Your task to perform on an android device: change keyboard looks Image 0: 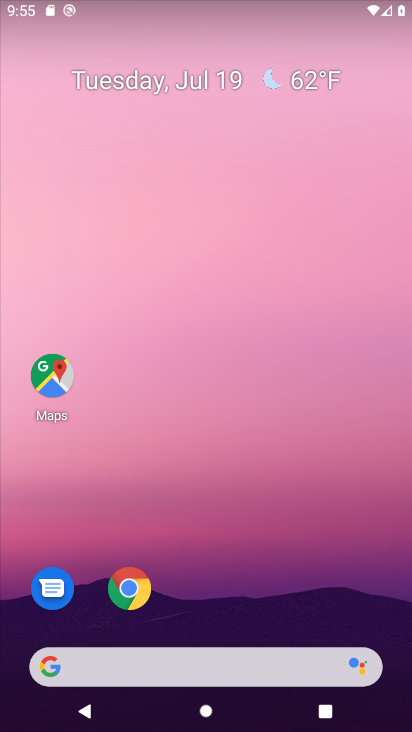
Step 0: drag from (195, 620) to (187, 127)
Your task to perform on an android device: change keyboard looks Image 1: 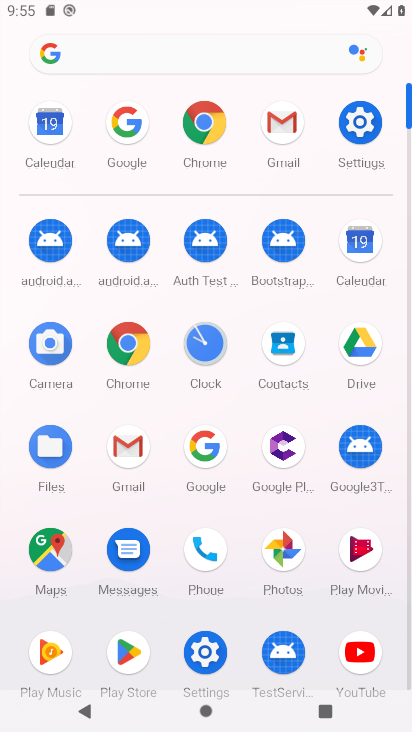
Step 1: click (358, 126)
Your task to perform on an android device: change keyboard looks Image 2: 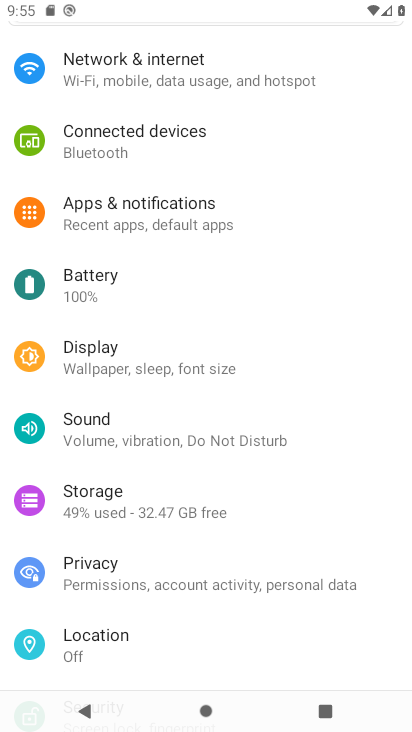
Step 2: drag from (139, 552) to (139, 364)
Your task to perform on an android device: change keyboard looks Image 3: 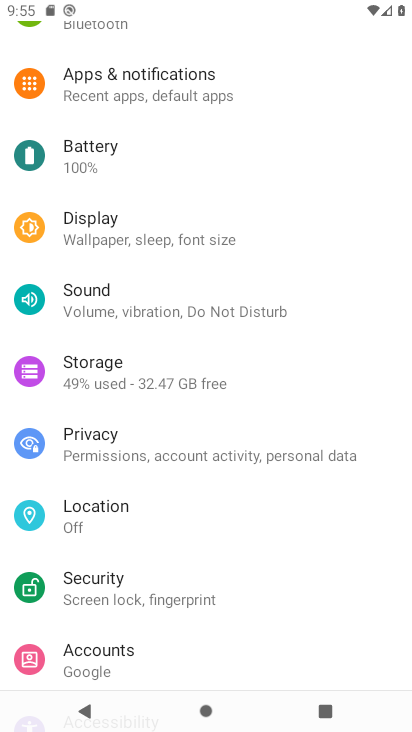
Step 3: drag from (135, 596) to (172, 257)
Your task to perform on an android device: change keyboard looks Image 4: 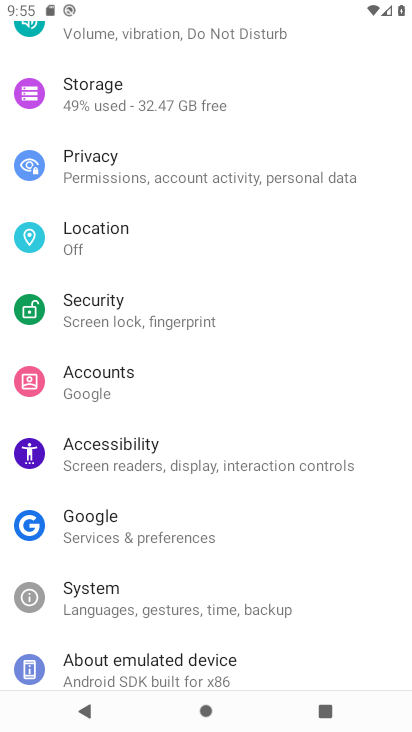
Step 4: click (91, 606)
Your task to perform on an android device: change keyboard looks Image 5: 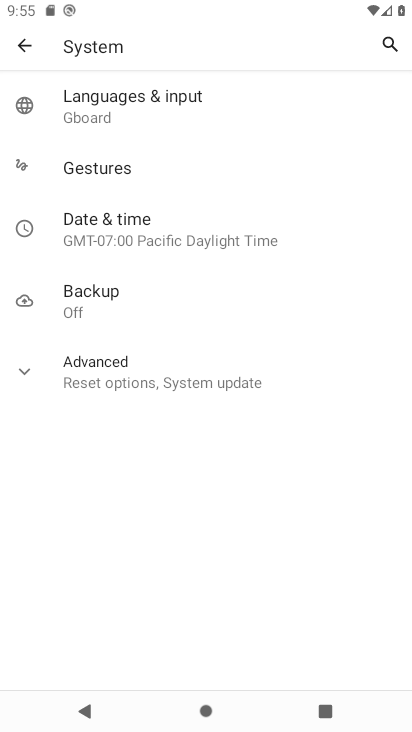
Step 5: click (106, 114)
Your task to perform on an android device: change keyboard looks Image 6: 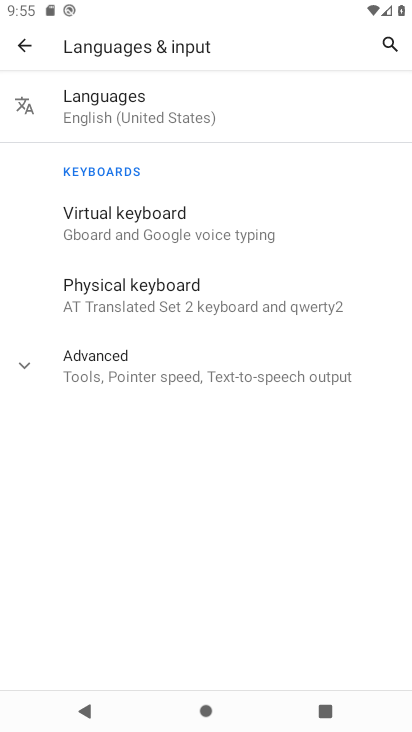
Step 6: click (106, 225)
Your task to perform on an android device: change keyboard looks Image 7: 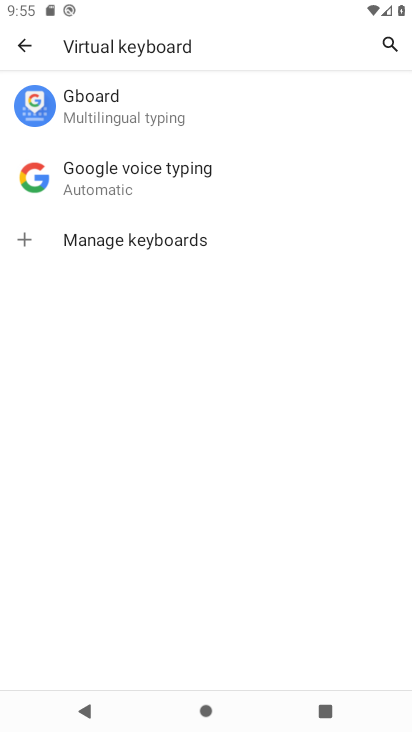
Step 7: click (65, 116)
Your task to perform on an android device: change keyboard looks Image 8: 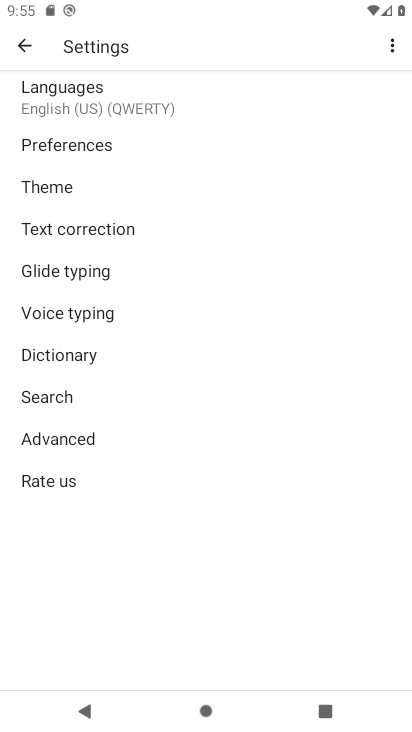
Step 8: click (67, 192)
Your task to perform on an android device: change keyboard looks Image 9: 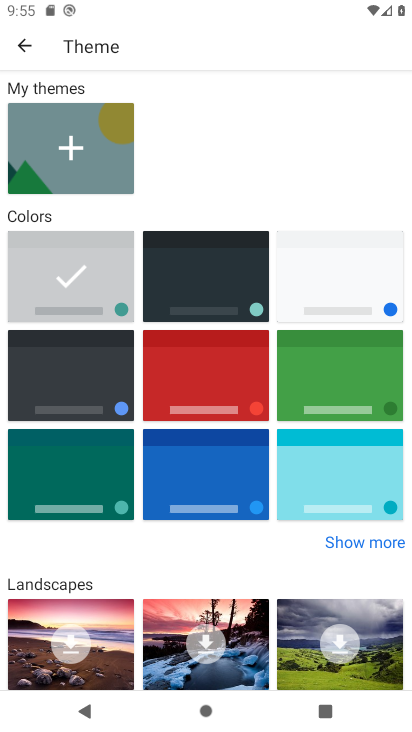
Step 9: click (182, 247)
Your task to perform on an android device: change keyboard looks Image 10: 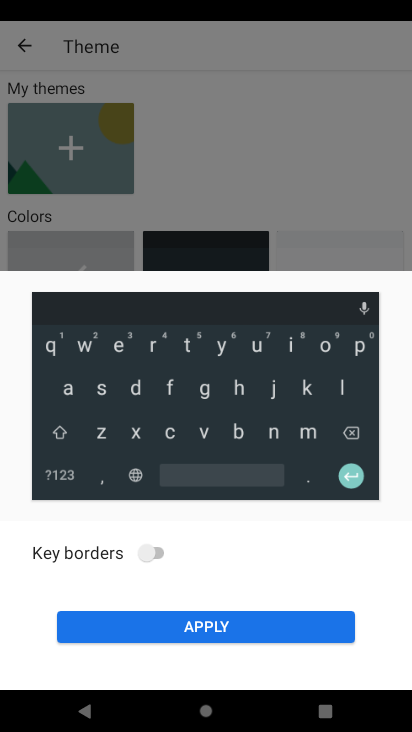
Step 10: click (183, 613)
Your task to perform on an android device: change keyboard looks Image 11: 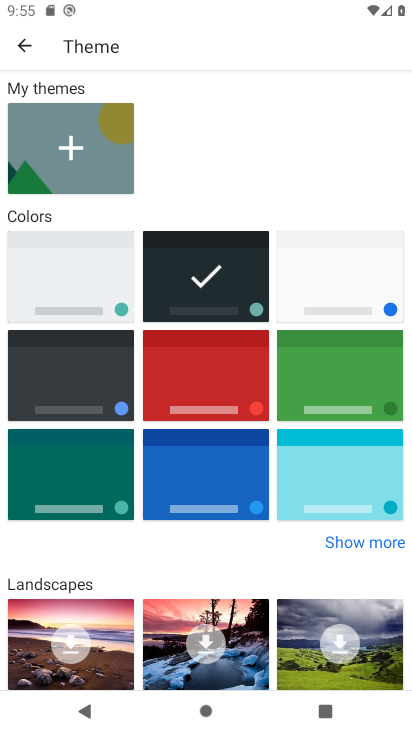
Step 11: task complete